Your task to perform on an android device: turn on wifi Image 0: 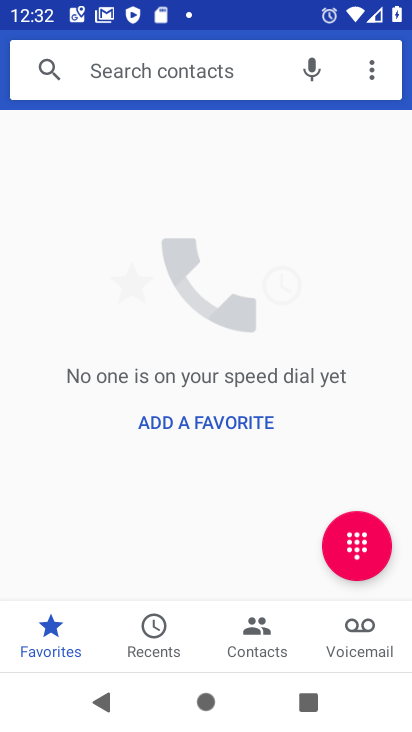
Step 0: press home button
Your task to perform on an android device: turn on wifi Image 1: 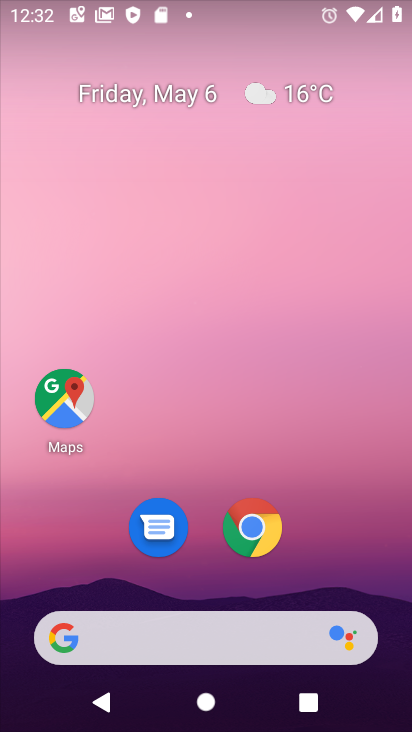
Step 1: drag from (318, 503) to (81, 78)
Your task to perform on an android device: turn on wifi Image 2: 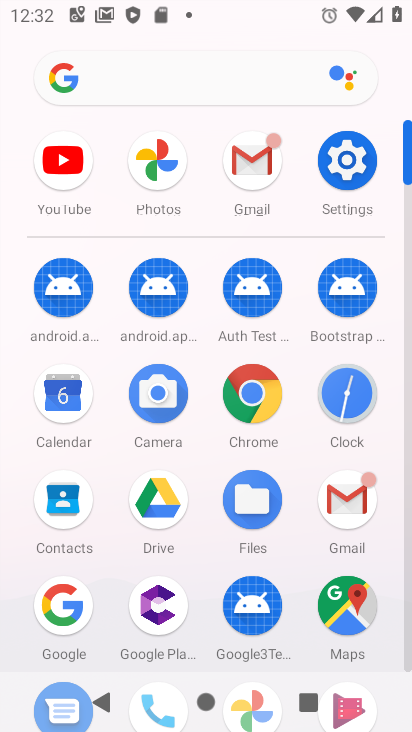
Step 2: click (350, 152)
Your task to perform on an android device: turn on wifi Image 3: 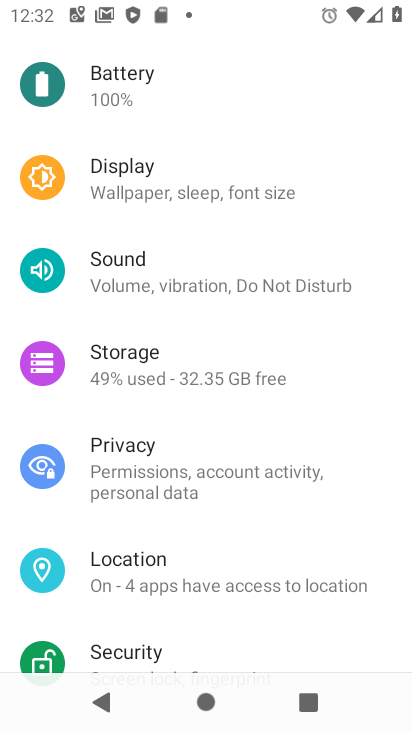
Step 3: drag from (149, 134) to (94, 543)
Your task to perform on an android device: turn on wifi Image 4: 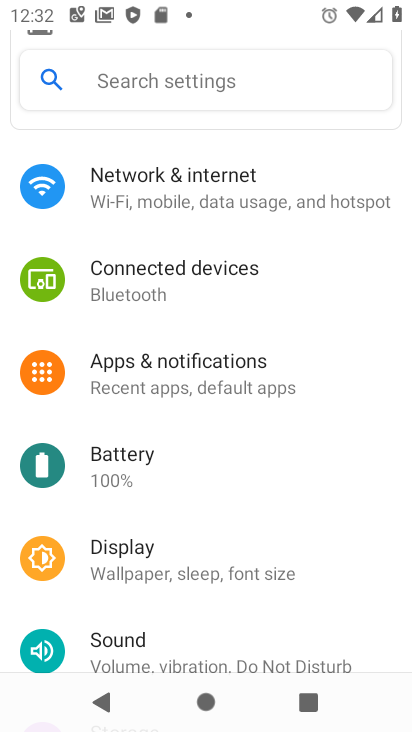
Step 4: click (182, 201)
Your task to perform on an android device: turn on wifi Image 5: 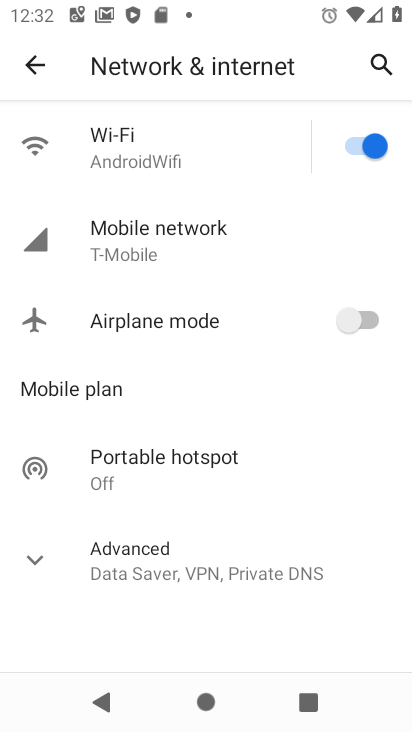
Step 5: task complete